Your task to perform on an android device: turn pop-ups off in chrome Image 0: 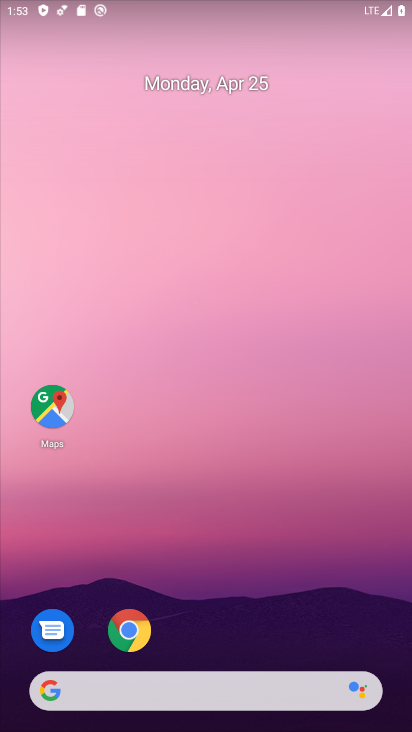
Step 0: drag from (347, 602) to (360, 104)
Your task to perform on an android device: turn pop-ups off in chrome Image 1: 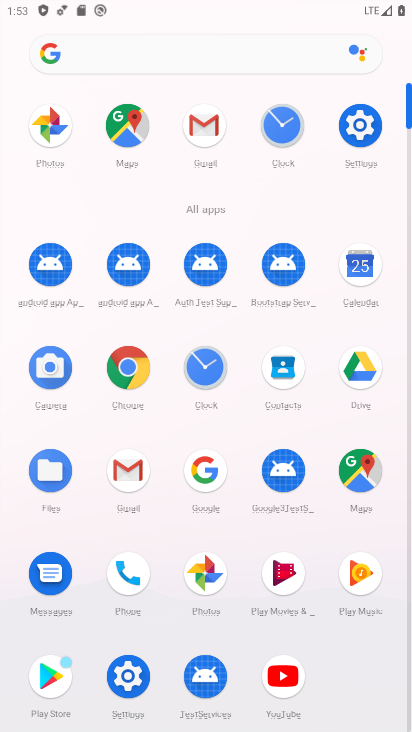
Step 1: click (129, 368)
Your task to perform on an android device: turn pop-ups off in chrome Image 2: 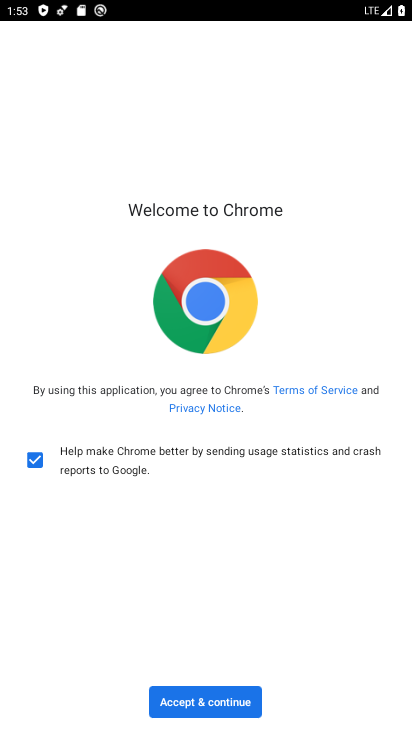
Step 2: click (197, 702)
Your task to perform on an android device: turn pop-ups off in chrome Image 3: 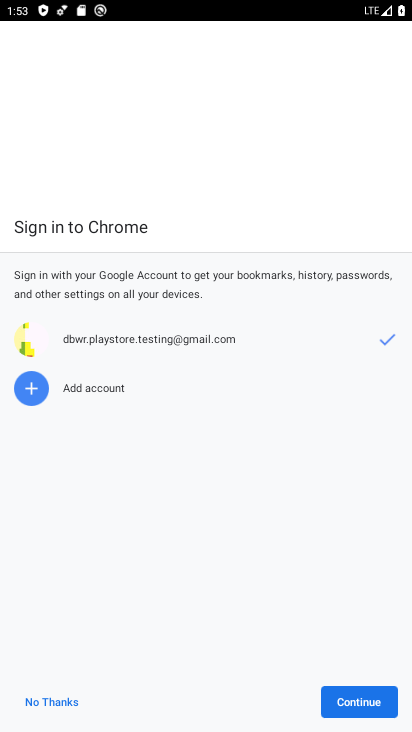
Step 3: click (330, 707)
Your task to perform on an android device: turn pop-ups off in chrome Image 4: 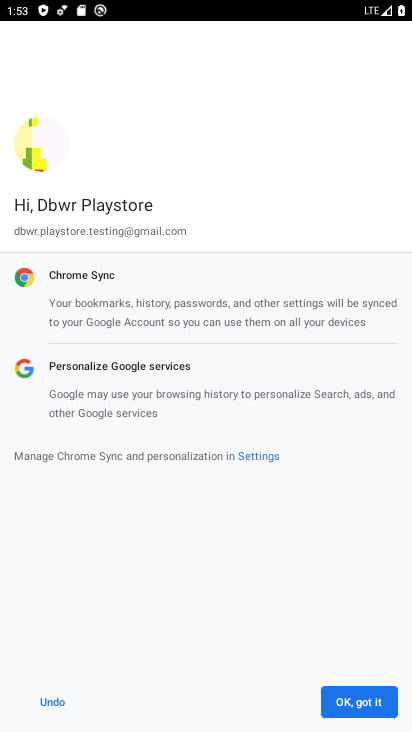
Step 4: click (330, 707)
Your task to perform on an android device: turn pop-ups off in chrome Image 5: 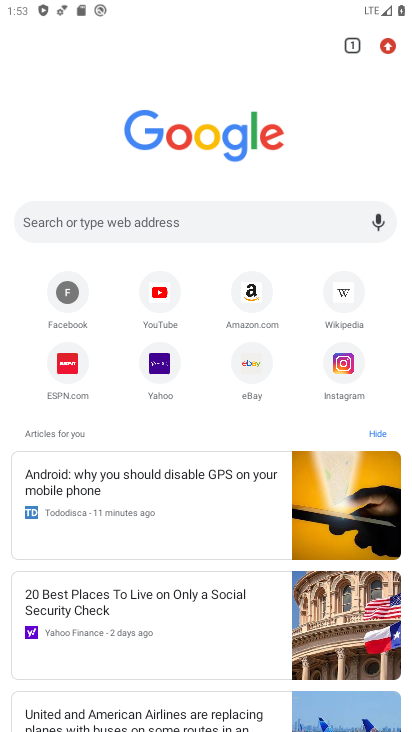
Step 5: click (391, 36)
Your task to perform on an android device: turn pop-ups off in chrome Image 6: 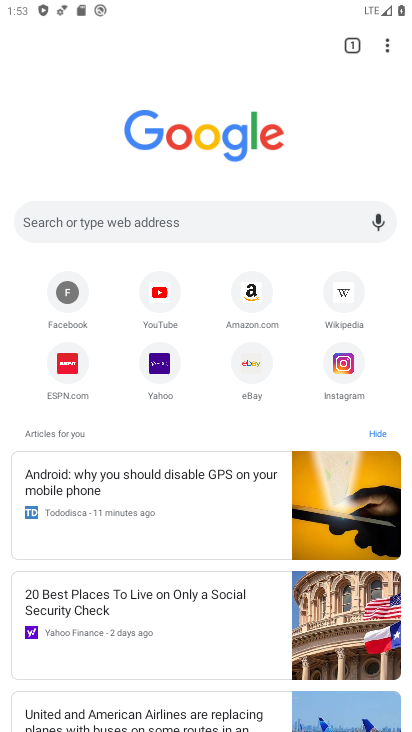
Step 6: click (384, 46)
Your task to perform on an android device: turn pop-ups off in chrome Image 7: 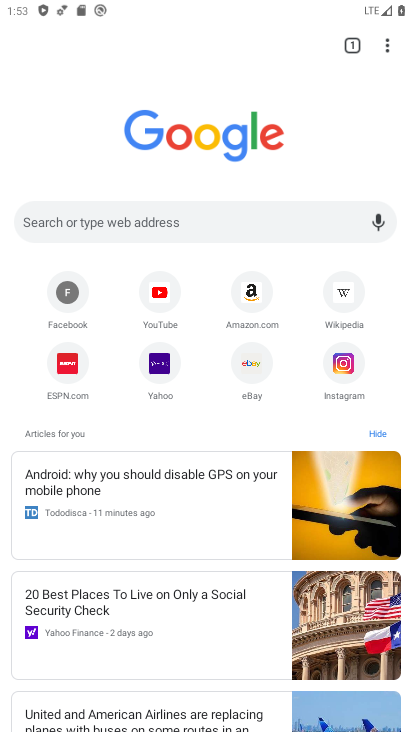
Step 7: click (386, 48)
Your task to perform on an android device: turn pop-ups off in chrome Image 8: 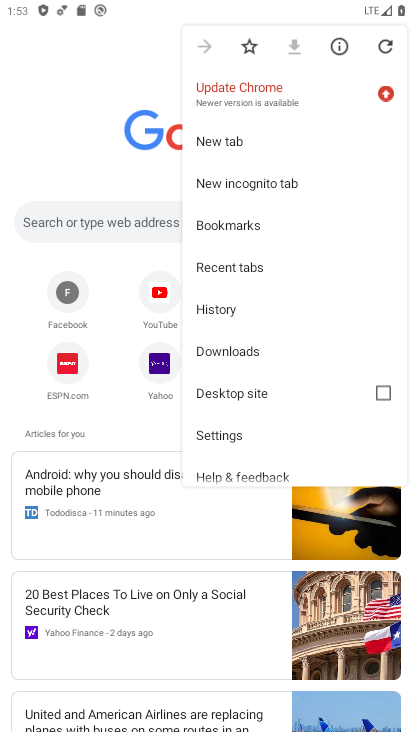
Step 8: click (238, 436)
Your task to perform on an android device: turn pop-ups off in chrome Image 9: 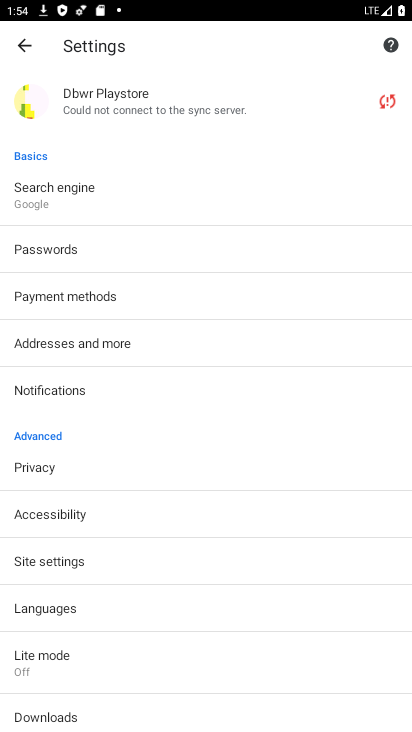
Step 9: drag from (274, 550) to (279, 470)
Your task to perform on an android device: turn pop-ups off in chrome Image 10: 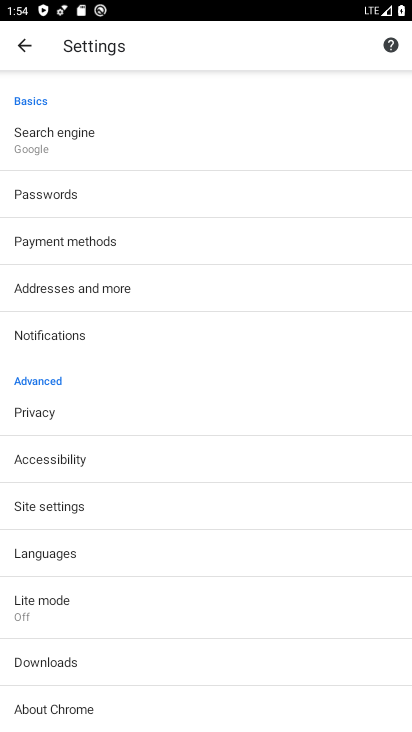
Step 10: click (256, 507)
Your task to perform on an android device: turn pop-ups off in chrome Image 11: 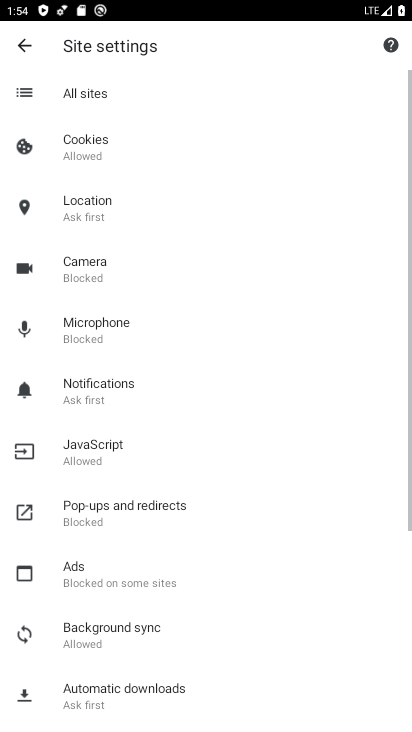
Step 11: drag from (284, 554) to (283, 444)
Your task to perform on an android device: turn pop-ups off in chrome Image 12: 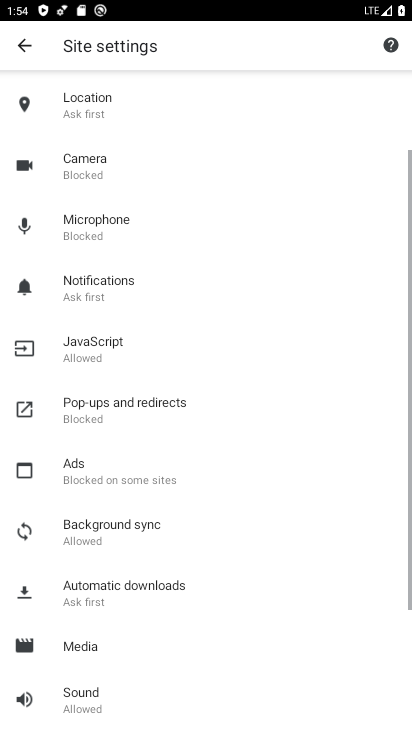
Step 12: drag from (272, 585) to (276, 471)
Your task to perform on an android device: turn pop-ups off in chrome Image 13: 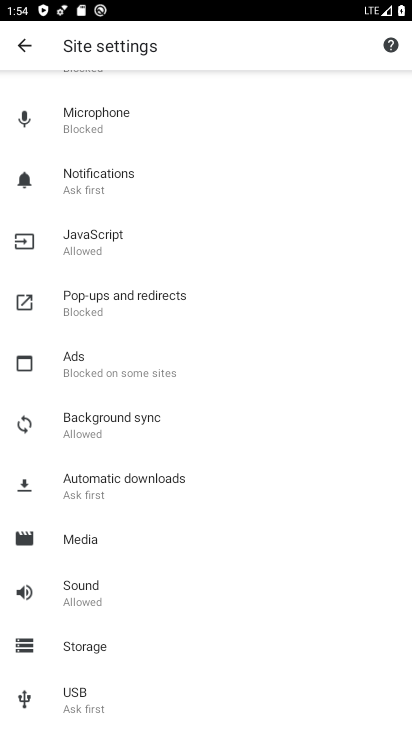
Step 13: drag from (271, 573) to (268, 469)
Your task to perform on an android device: turn pop-ups off in chrome Image 14: 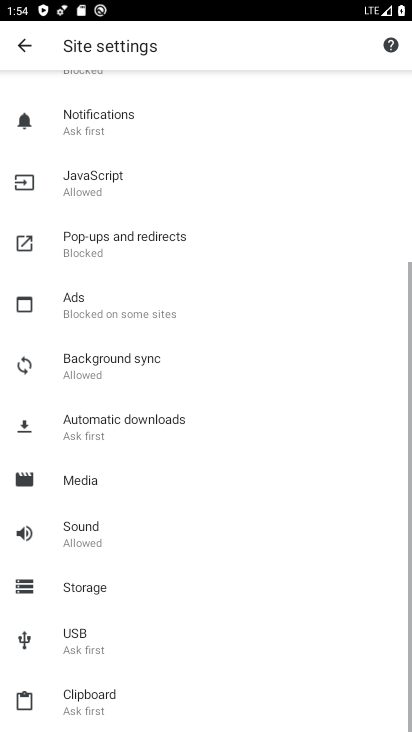
Step 14: drag from (269, 433) to (268, 517)
Your task to perform on an android device: turn pop-ups off in chrome Image 15: 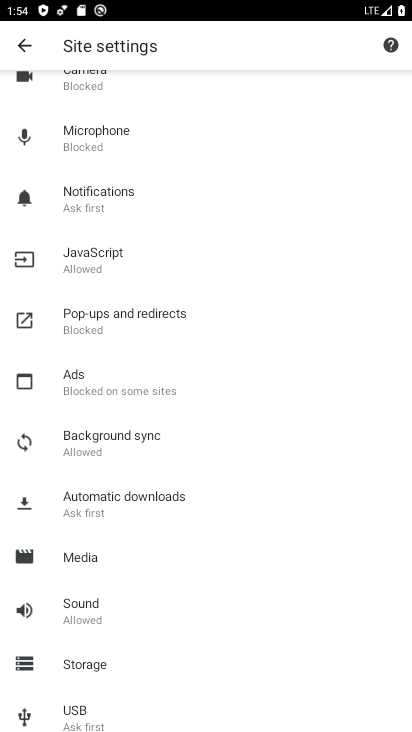
Step 15: drag from (254, 361) to (261, 499)
Your task to perform on an android device: turn pop-ups off in chrome Image 16: 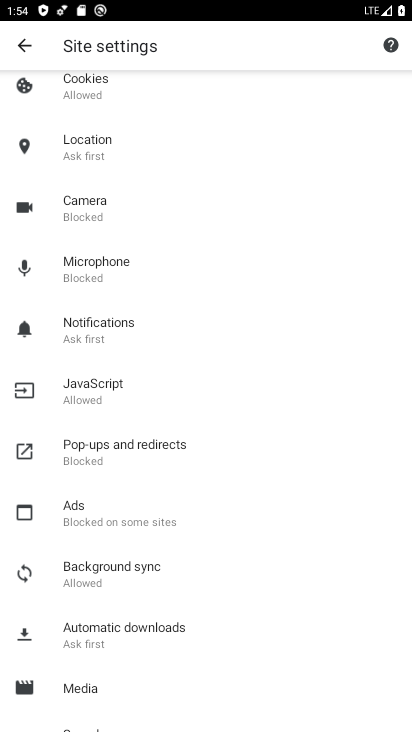
Step 16: drag from (266, 363) to (266, 487)
Your task to perform on an android device: turn pop-ups off in chrome Image 17: 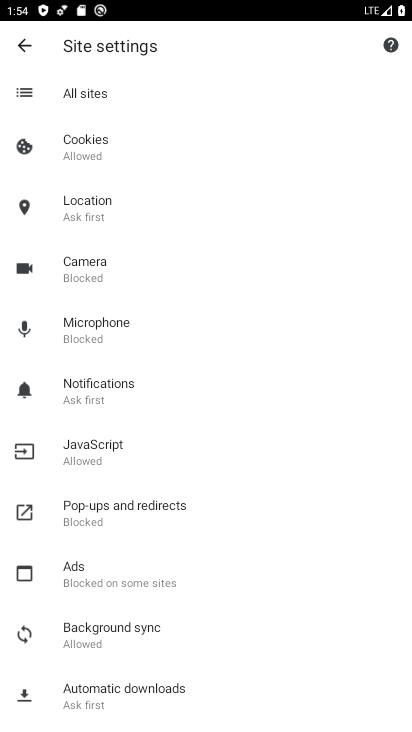
Step 17: drag from (259, 358) to (263, 475)
Your task to perform on an android device: turn pop-ups off in chrome Image 18: 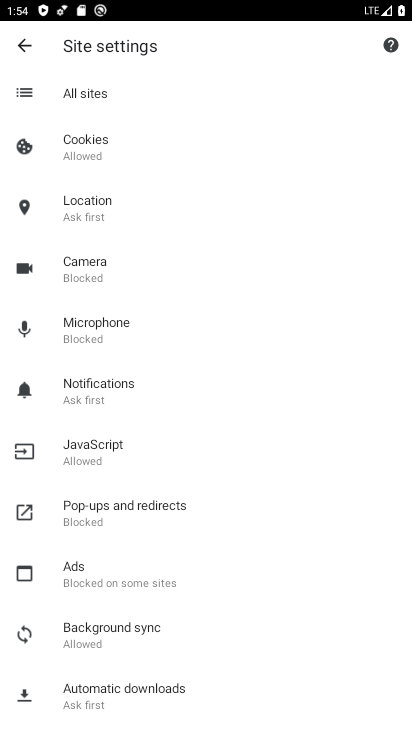
Step 18: click (190, 511)
Your task to perform on an android device: turn pop-ups off in chrome Image 19: 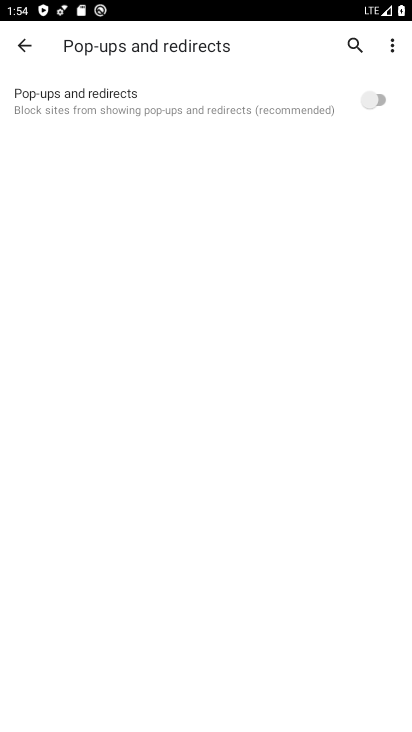
Step 19: task complete